Your task to perform on an android device: Go to CNN.com Image 0: 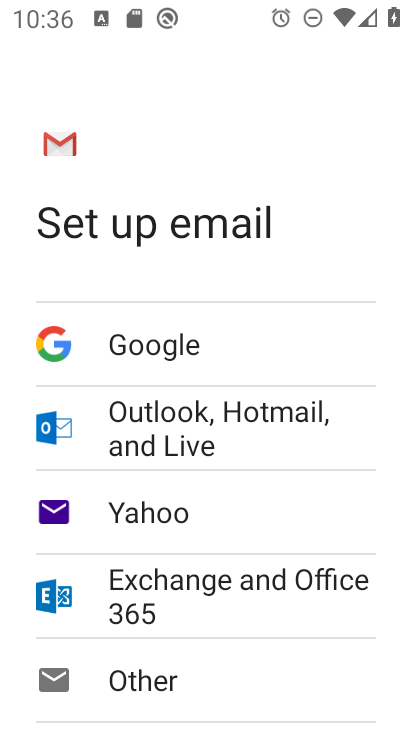
Step 0: press home button
Your task to perform on an android device: Go to CNN.com Image 1: 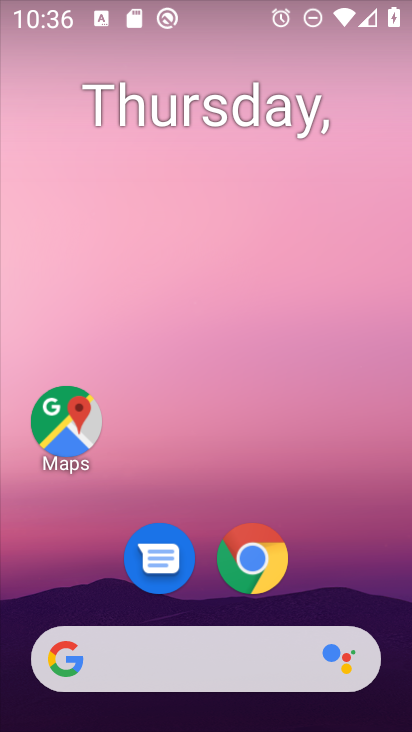
Step 1: click (254, 549)
Your task to perform on an android device: Go to CNN.com Image 2: 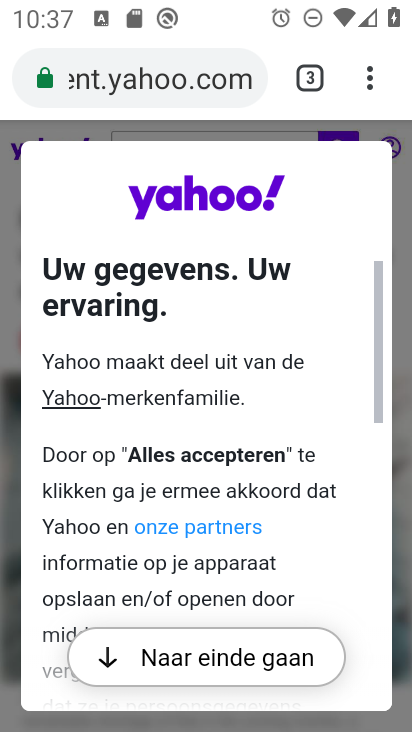
Step 2: click (157, 89)
Your task to perform on an android device: Go to CNN.com Image 3: 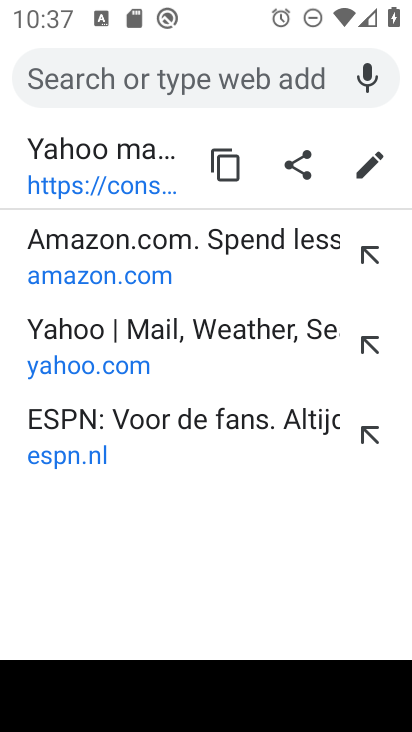
Step 3: type "cnn.com"
Your task to perform on an android device: Go to CNN.com Image 4: 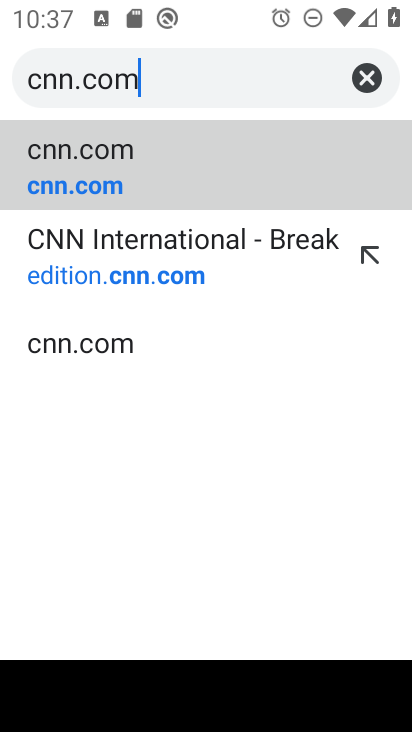
Step 4: click (96, 165)
Your task to perform on an android device: Go to CNN.com Image 5: 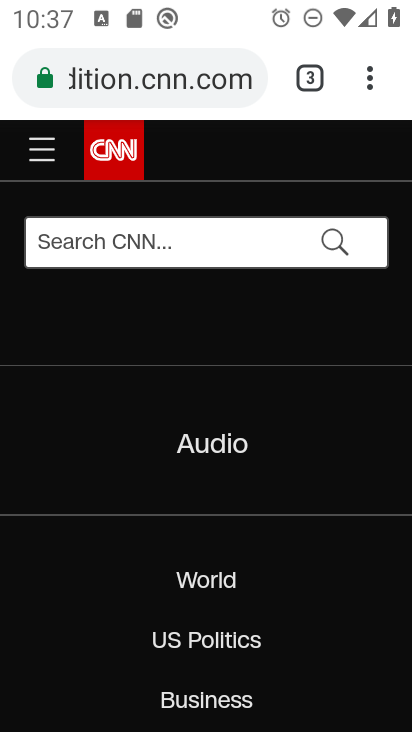
Step 5: task complete